Your task to perform on an android device: Is it going to rain today? Image 0: 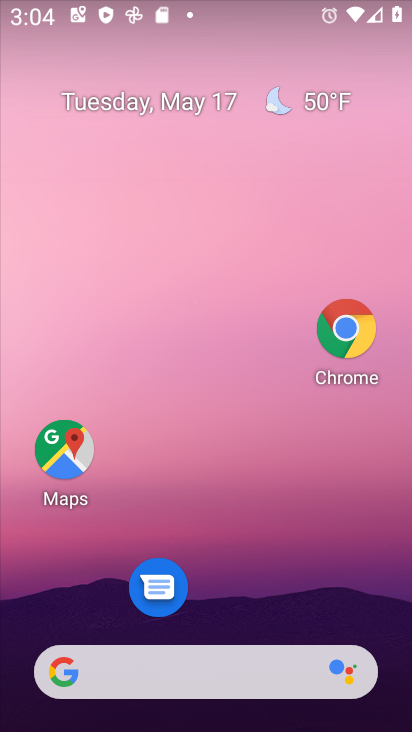
Step 0: drag from (315, 609) to (206, 91)
Your task to perform on an android device: Is it going to rain today? Image 1: 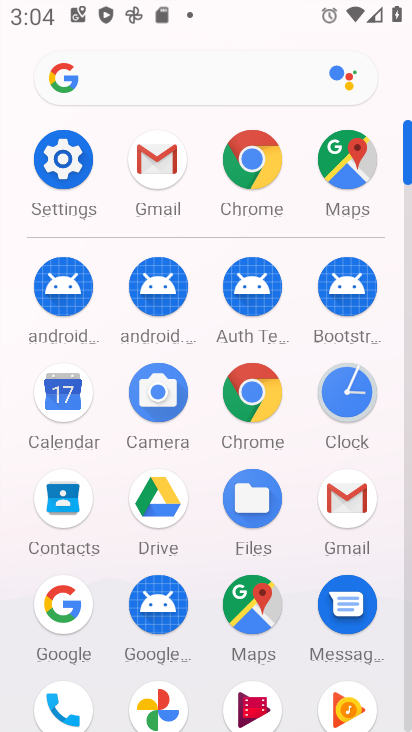
Step 1: click (185, 71)
Your task to perform on an android device: Is it going to rain today? Image 2: 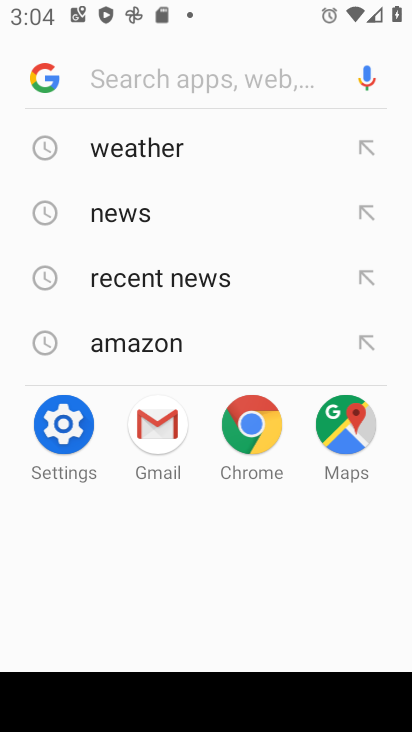
Step 2: click (178, 158)
Your task to perform on an android device: Is it going to rain today? Image 3: 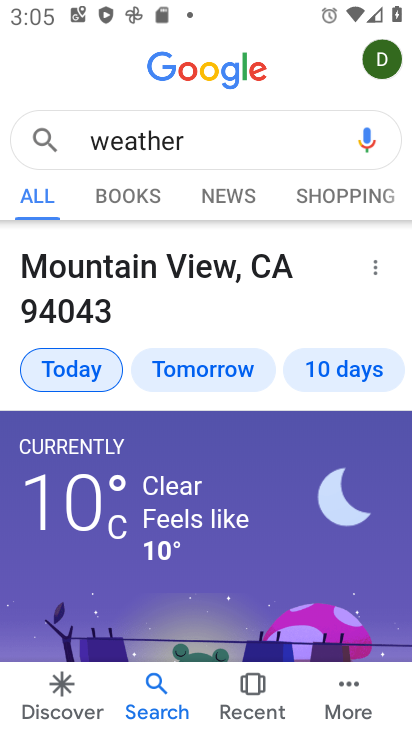
Step 3: task complete